Your task to perform on an android device: toggle data saver in the chrome app Image 0: 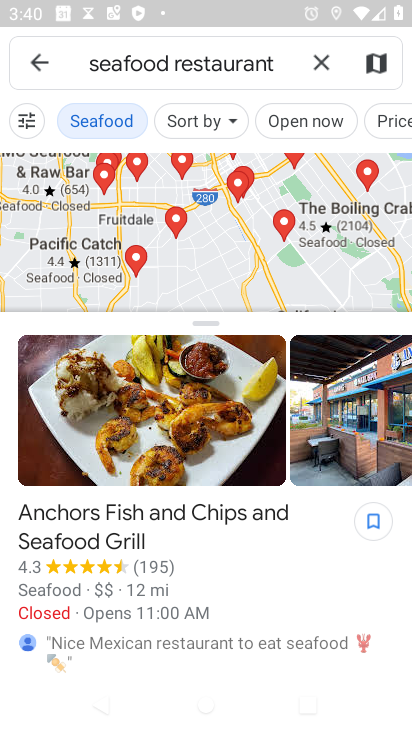
Step 0: press home button
Your task to perform on an android device: toggle data saver in the chrome app Image 1: 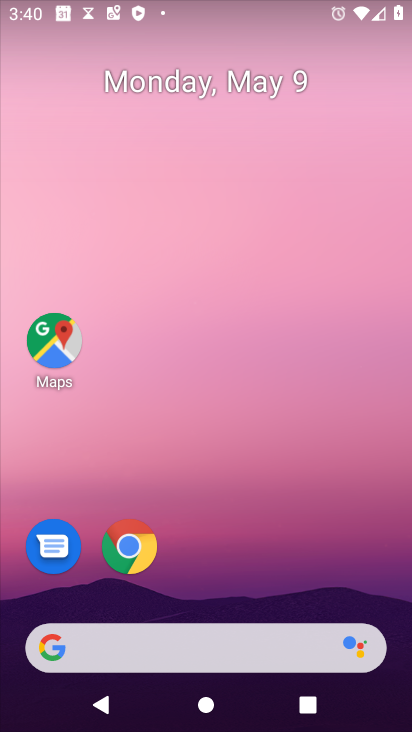
Step 1: click (143, 559)
Your task to perform on an android device: toggle data saver in the chrome app Image 2: 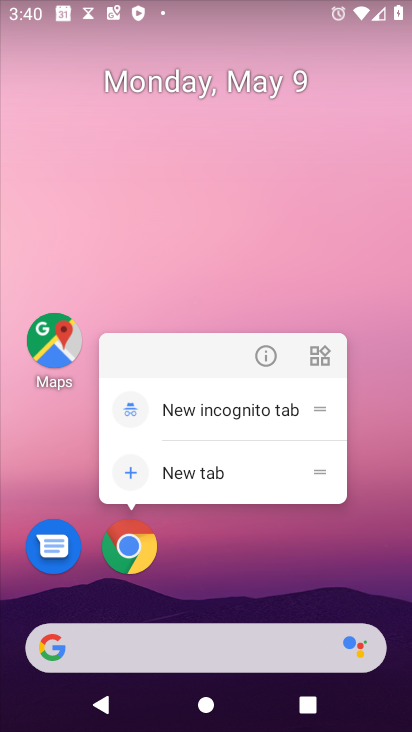
Step 2: click (143, 559)
Your task to perform on an android device: toggle data saver in the chrome app Image 3: 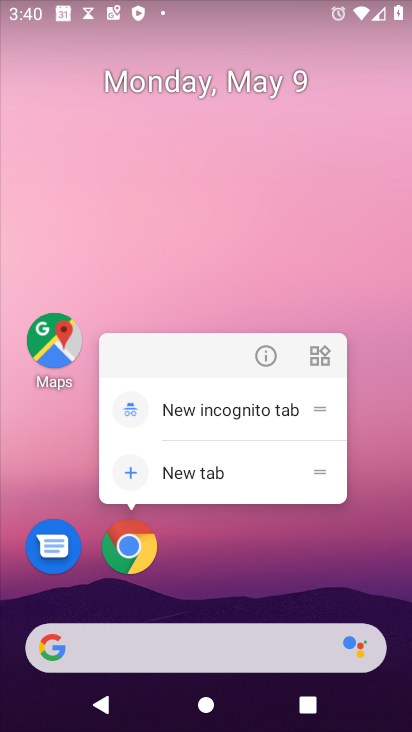
Step 3: click (280, 570)
Your task to perform on an android device: toggle data saver in the chrome app Image 4: 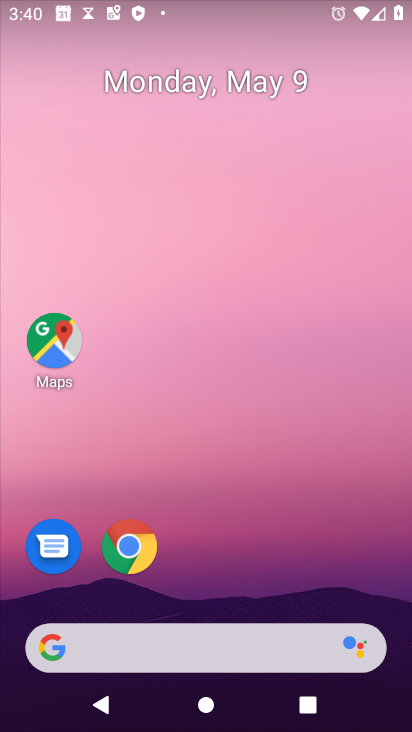
Step 4: drag from (302, 556) to (274, 192)
Your task to perform on an android device: toggle data saver in the chrome app Image 5: 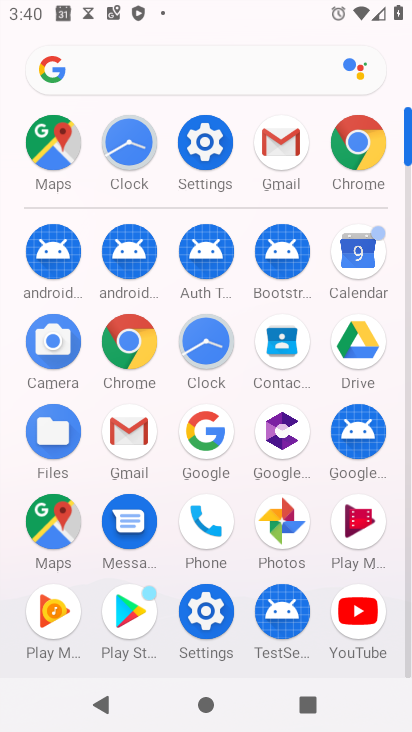
Step 5: click (369, 147)
Your task to perform on an android device: toggle data saver in the chrome app Image 6: 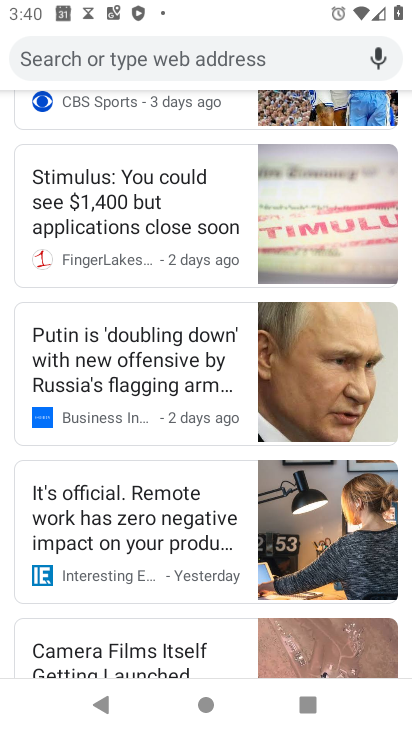
Step 6: drag from (341, 149) to (411, 563)
Your task to perform on an android device: toggle data saver in the chrome app Image 7: 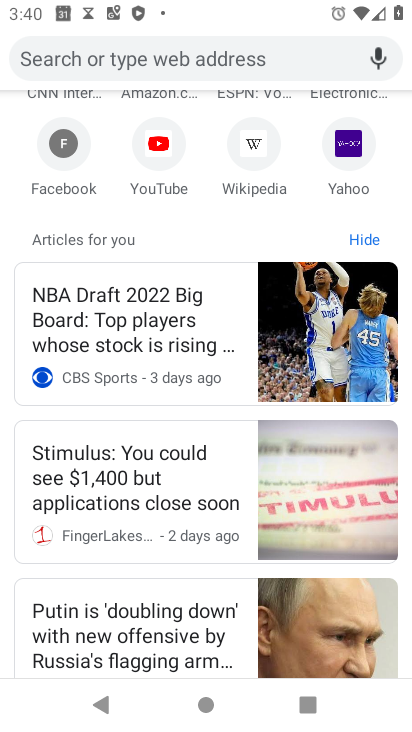
Step 7: drag from (329, 165) to (412, 582)
Your task to perform on an android device: toggle data saver in the chrome app Image 8: 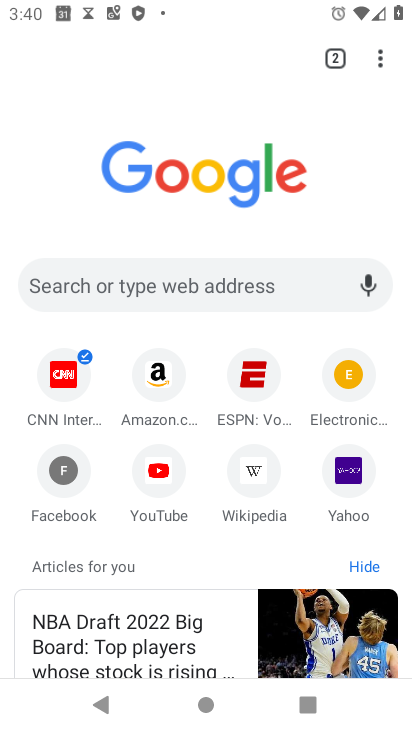
Step 8: drag from (380, 61) to (231, 488)
Your task to perform on an android device: toggle data saver in the chrome app Image 9: 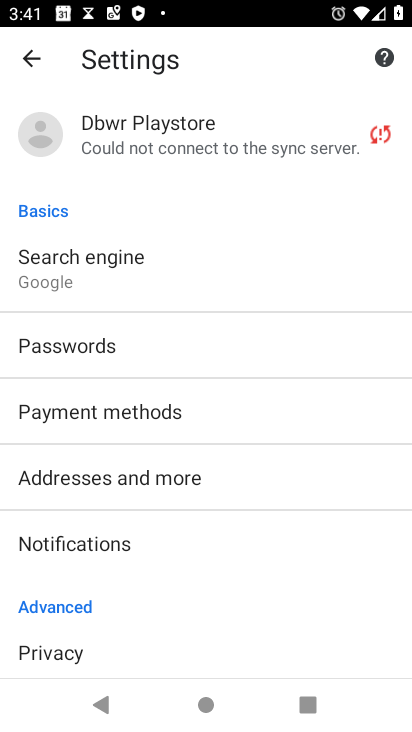
Step 9: drag from (190, 642) to (199, 267)
Your task to perform on an android device: toggle data saver in the chrome app Image 10: 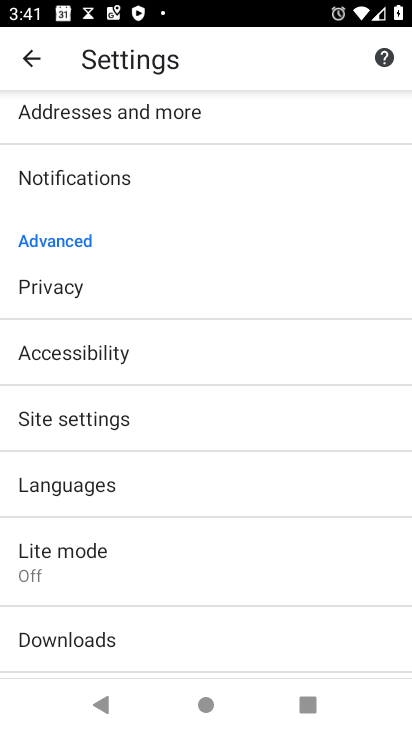
Step 10: click (116, 549)
Your task to perform on an android device: toggle data saver in the chrome app Image 11: 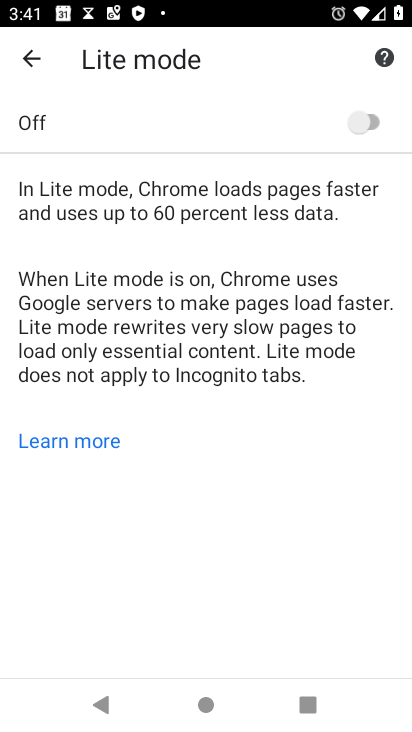
Step 11: click (374, 123)
Your task to perform on an android device: toggle data saver in the chrome app Image 12: 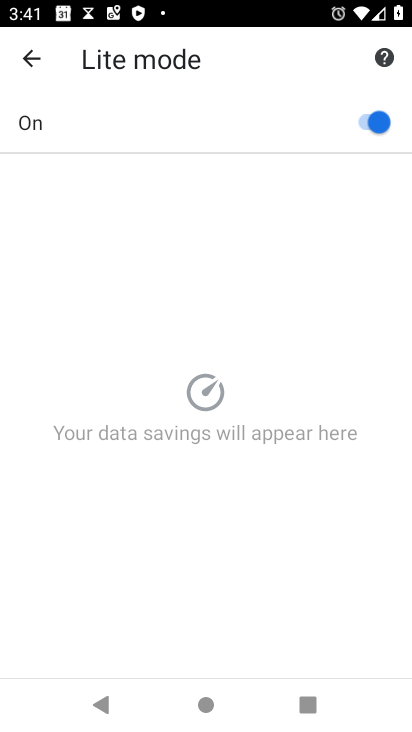
Step 12: task complete